Your task to perform on an android device: Clear all items from cart on walmart. Add bose soundlink to the cart on walmart Image 0: 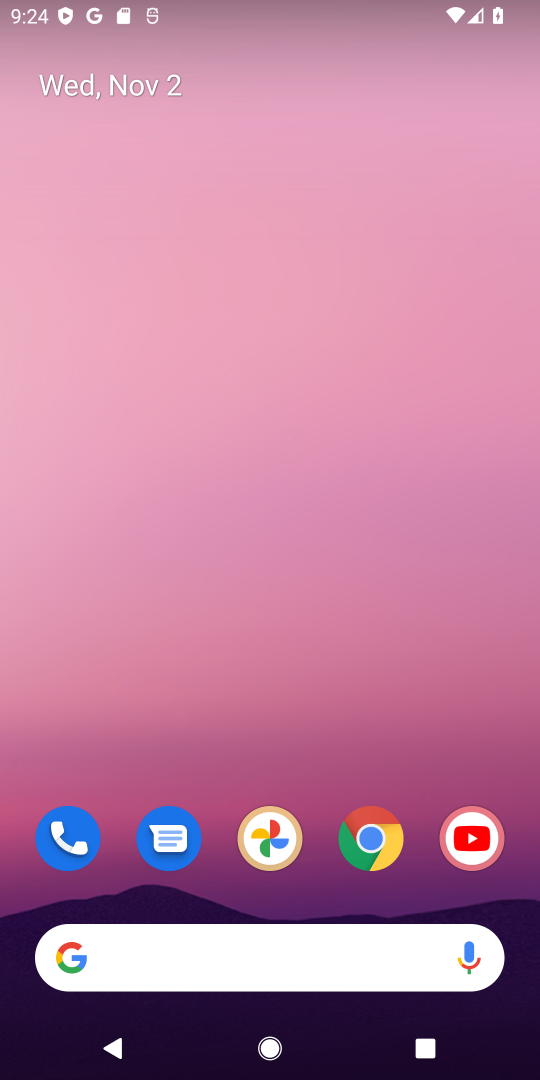
Step 0: click (373, 840)
Your task to perform on an android device: Clear all items from cart on walmart. Add bose soundlink to the cart on walmart Image 1: 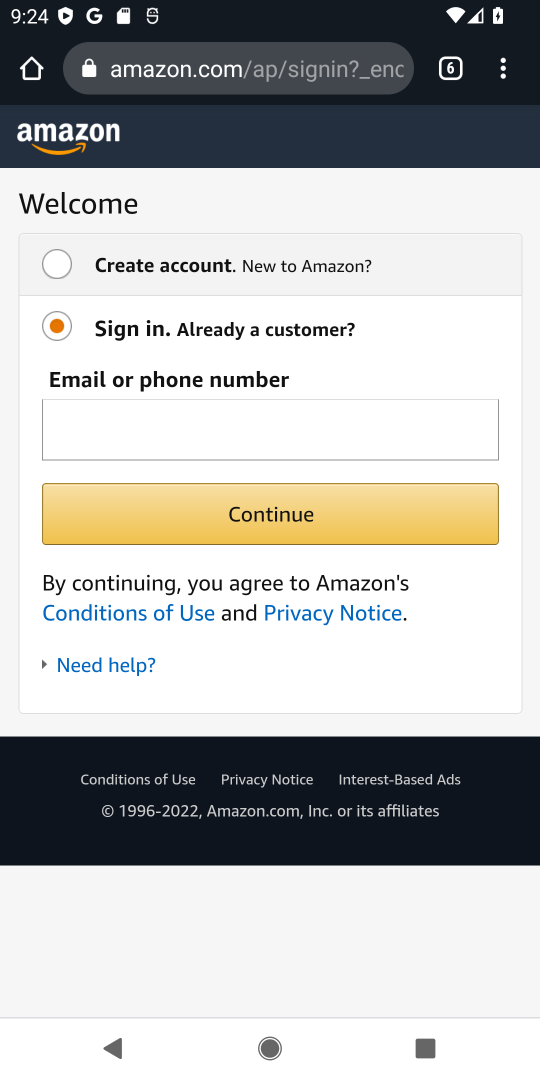
Step 1: click (447, 67)
Your task to perform on an android device: Clear all items from cart on walmart. Add bose soundlink to the cart on walmart Image 2: 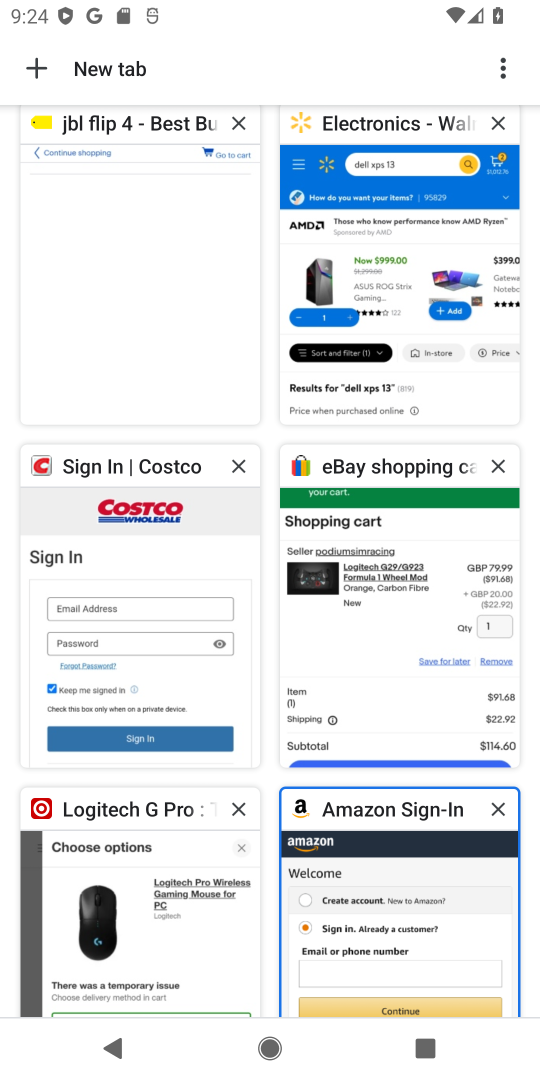
Step 2: click (430, 219)
Your task to perform on an android device: Clear all items from cart on walmart. Add bose soundlink to the cart on walmart Image 3: 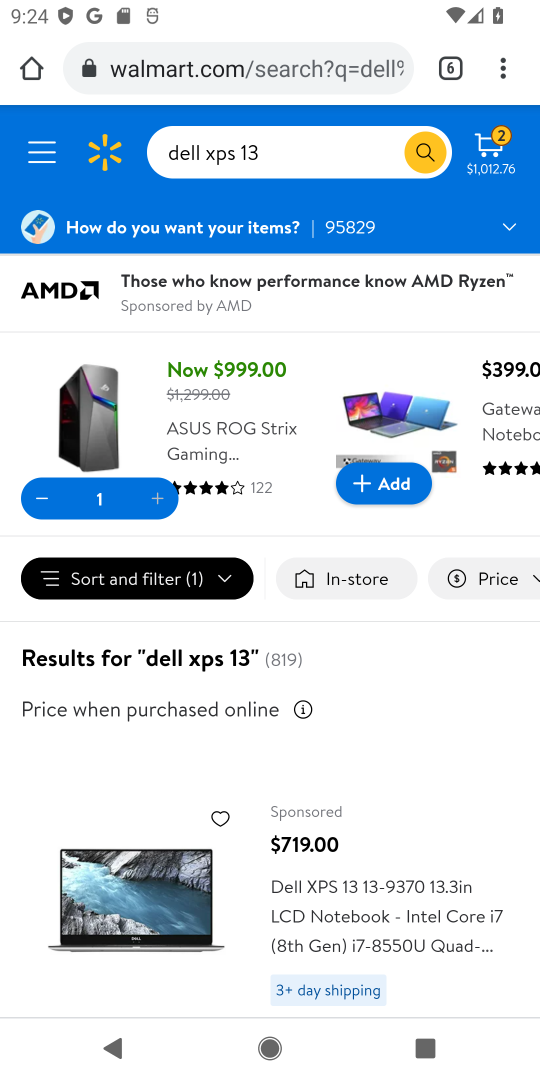
Step 3: click (498, 138)
Your task to perform on an android device: Clear all items from cart on walmart. Add bose soundlink to the cart on walmart Image 4: 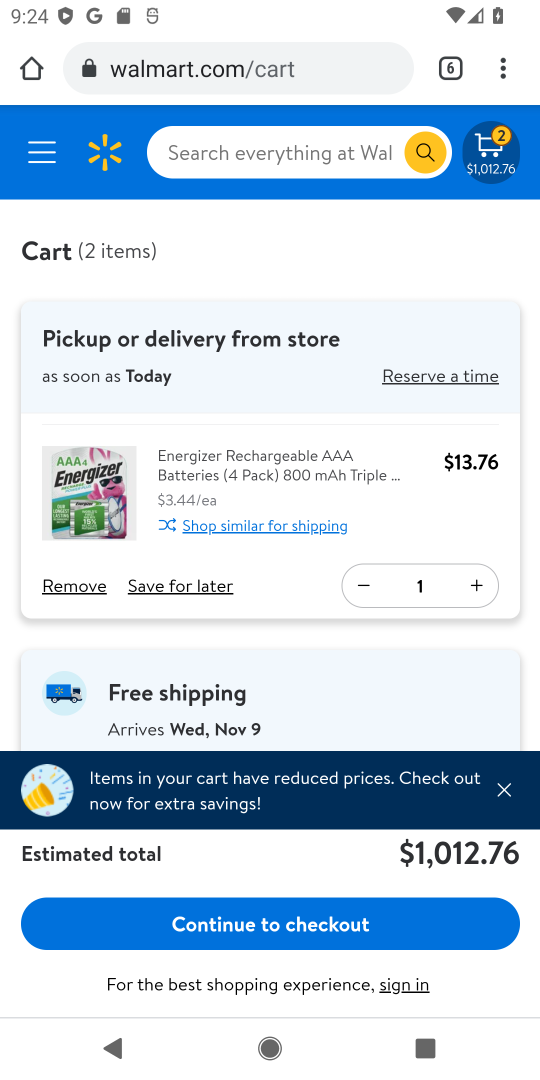
Step 4: click (54, 593)
Your task to perform on an android device: Clear all items from cart on walmart. Add bose soundlink to the cart on walmart Image 5: 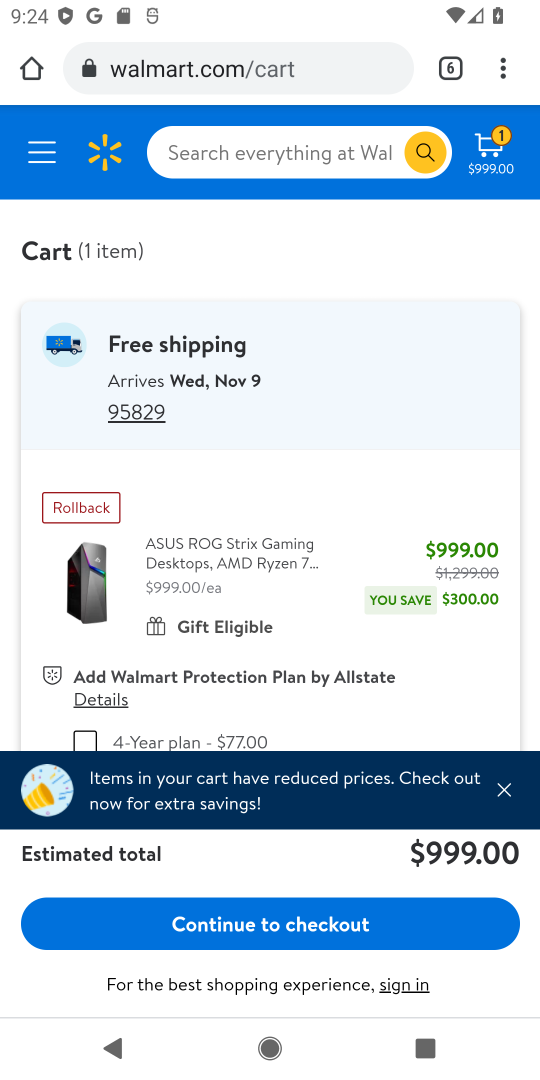
Step 5: click (508, 791)
Your task to perform on an android device: Clear all items from cart on walmart. Add bose soundlink to the cart on walmart Image 6: 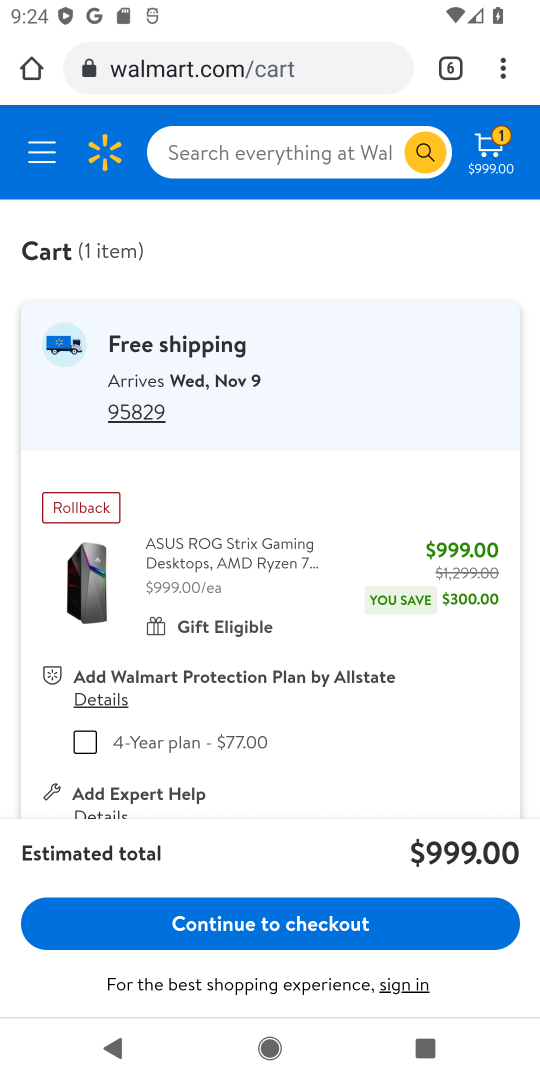
Step 6: drag from (371, 786) to (421, 465)
Your task to perform on an android device: Clear all items from cart on walmart. Add bose soundlink to the cart on walmart Image 7: 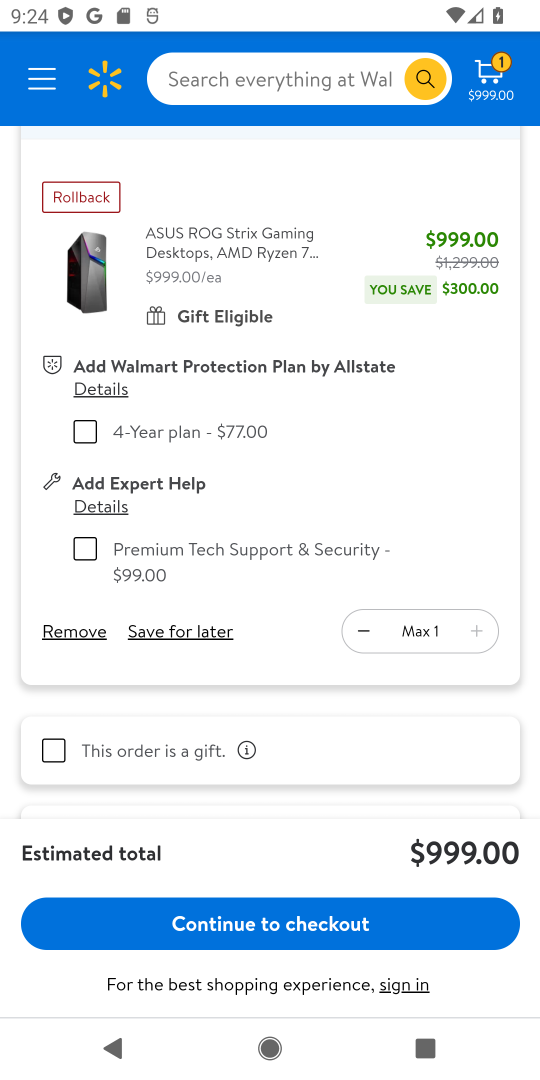
Step 7: click (63, 625)
Your task to perform on an android device: Clear all items from cart on walmart. Add bose soundlink to the cart on walmart Image 8: 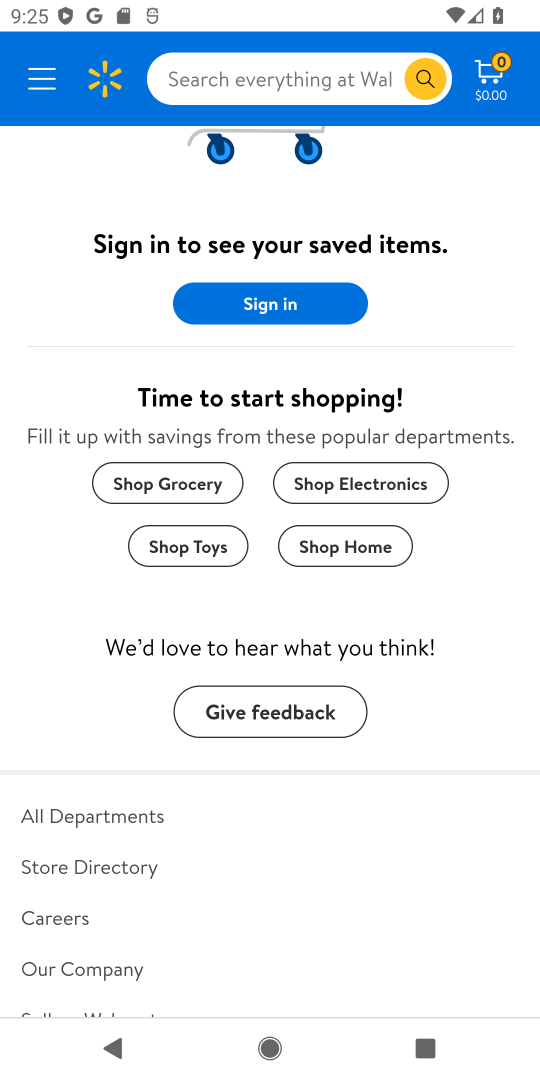
Step 8: click (225, 81)
Your task to perform on an android device: Clear all items from cart on walmart. Add bose soundlink to the cart on walmart Image 9: 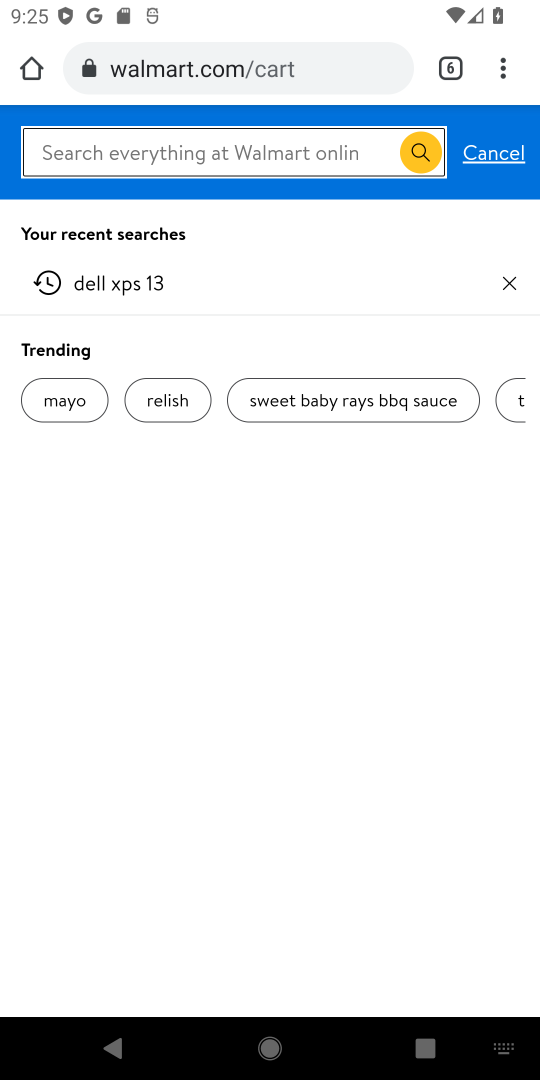
Step 9: press enter
Your task to perform on an android device: Clear all items from cart on walmart. Add bose soundlink to the cart on walmart Image 10: 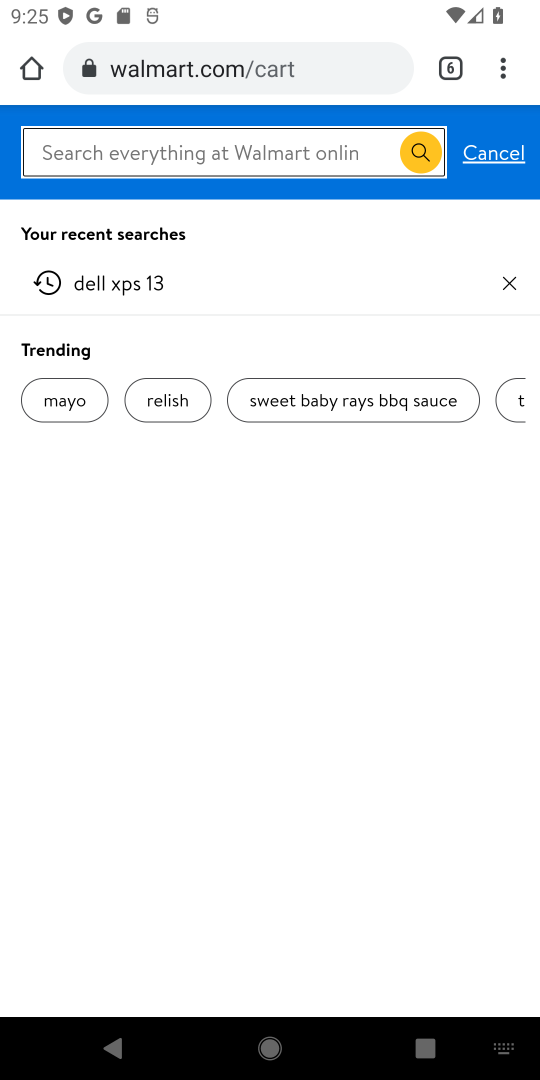
Step 10: type "bose soundlink"
Your task to perform on an android device: Clear all items from cart on walmart. Add bose soundlink to the cart on walmart Image 11: 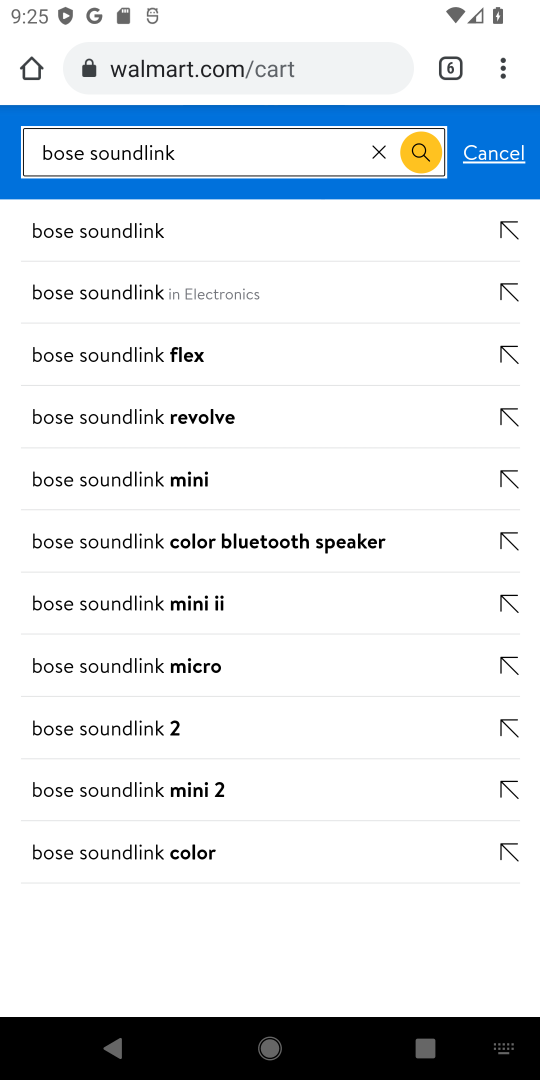
Step 11: click (164, 292)
Your task to perform on an android device: Clear all items from cart on walmart. Add bose soundlink to the cart on walmart Image 12: 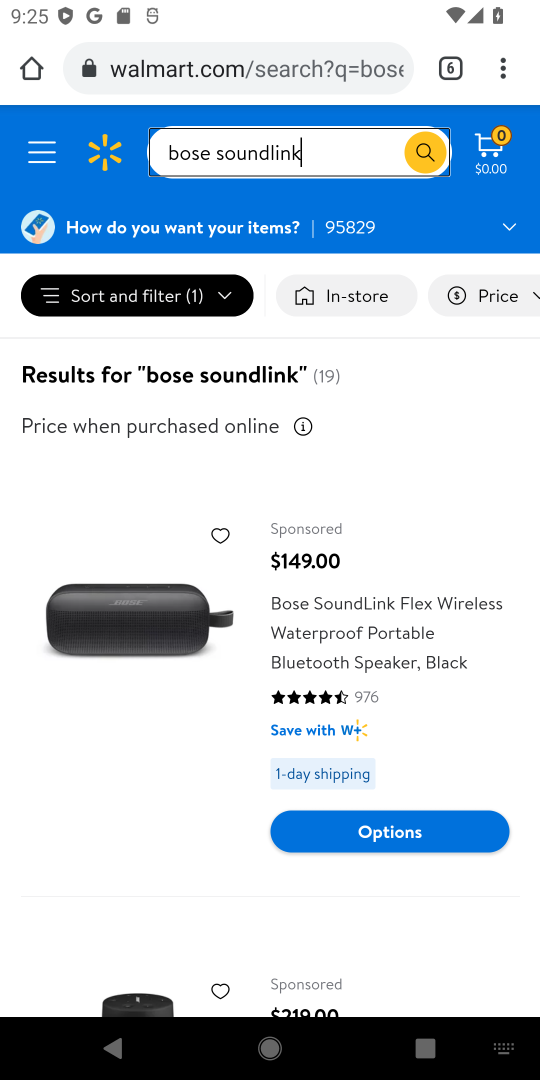
Step 12: click (361, 669)
Your task to perform on an android device: Clear all items from cart on walmart. Add bose soundlink to the cart on walmart Image 13: 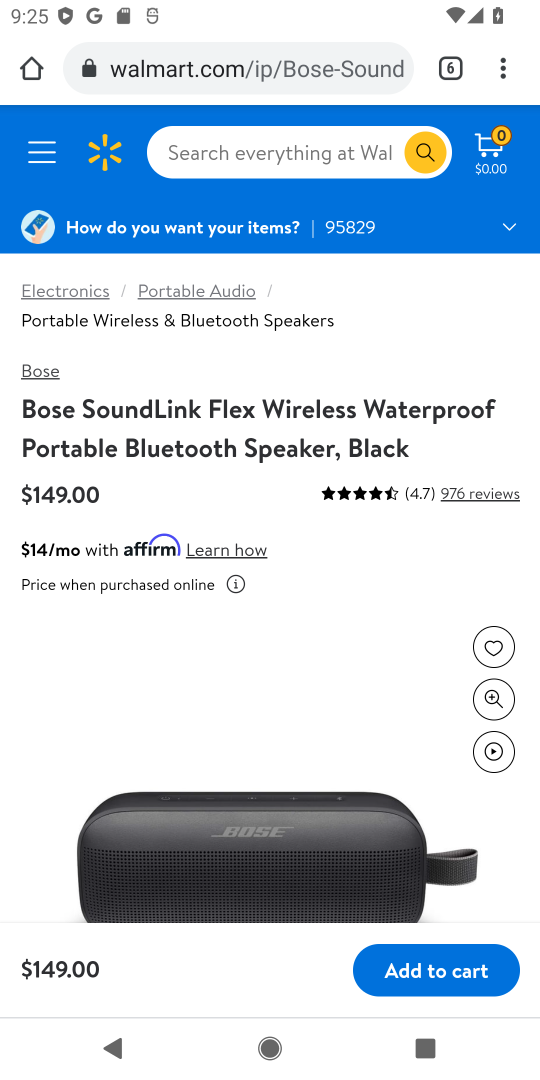
Step 13: click (457, 969)
Your task to perform on an android device: Clear all items from cart on walmart. Add bose soundlink to the cart on walmart Image 14: 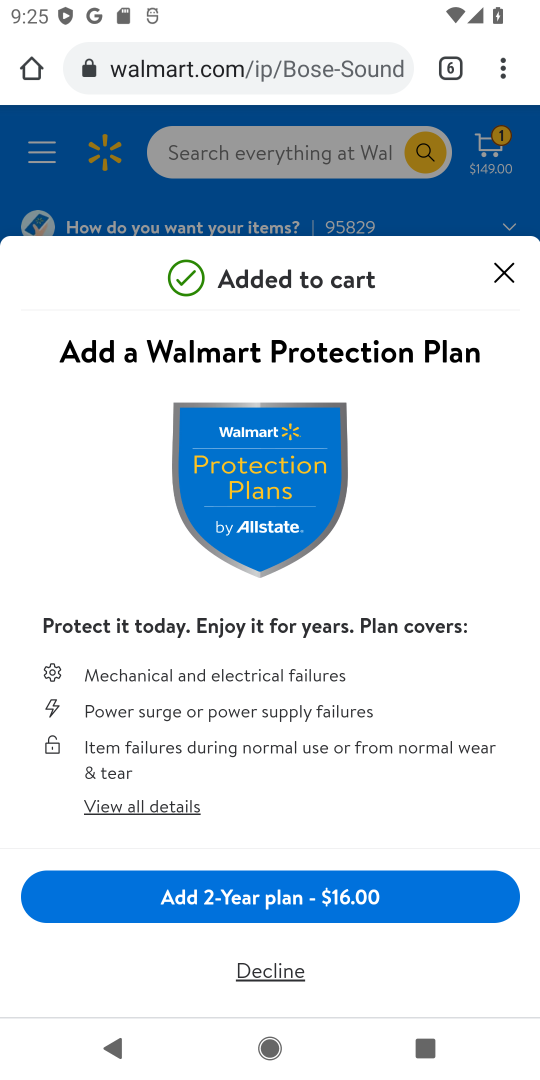
Step 14: task complete